Your task to perform on an android device: toggle javascript in the chrome app Image 0: 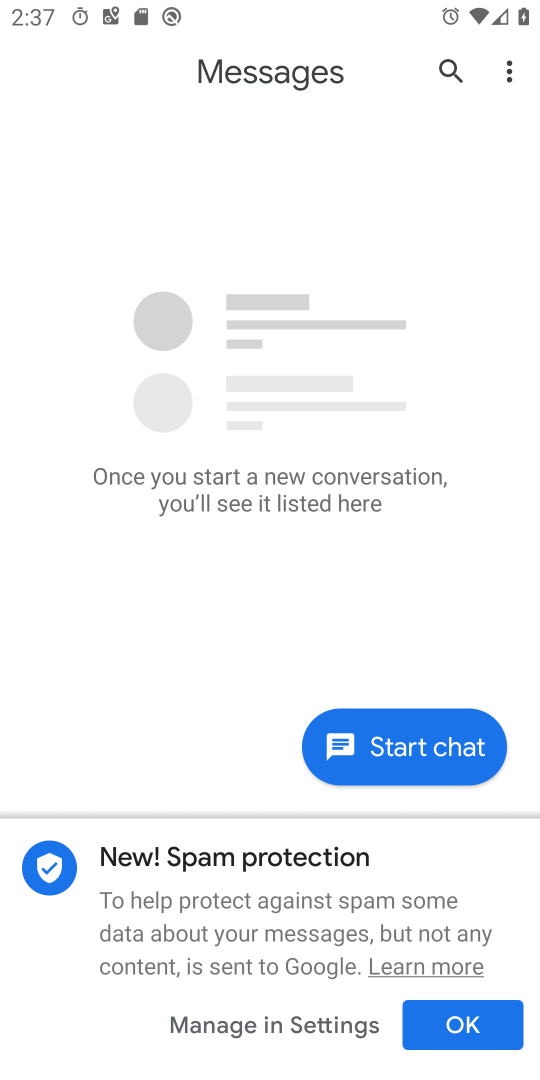
Step 0: press back button
Your task to perform on an android device: toggle javascript in the chrome app Image 1: 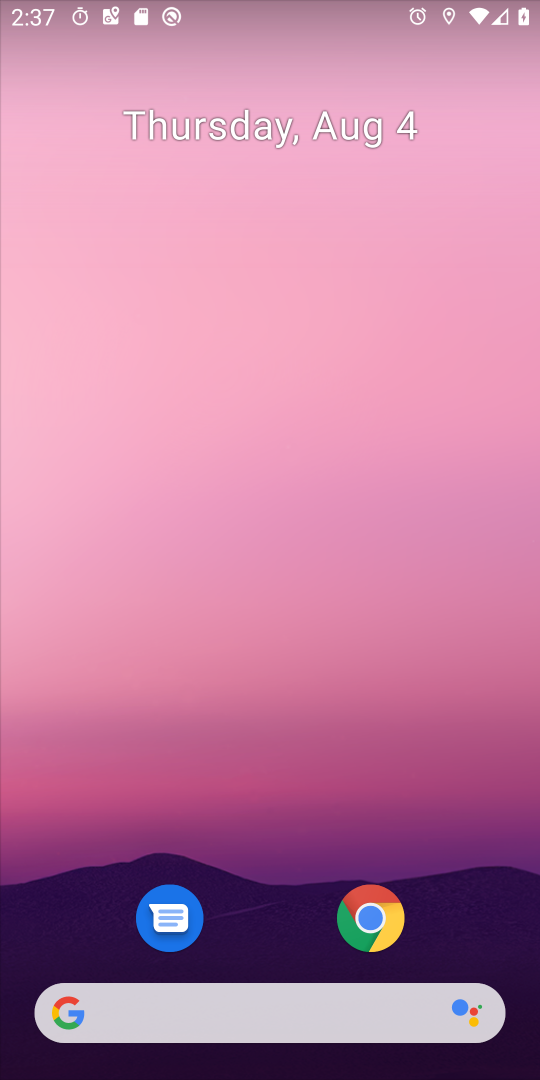
Step 1: click (370, 898)
Your task to perform on an android device: toggle javascript in the chrome app Image 2: 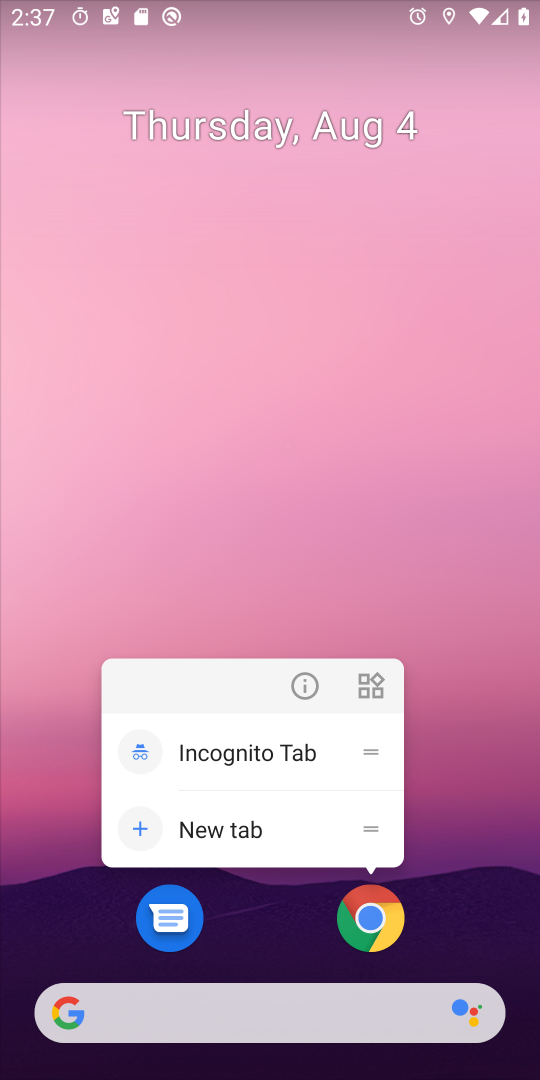
Step 2: click (378, 917)
Your task to perform on an android device: toggle javascript in the chrome app Image 3: 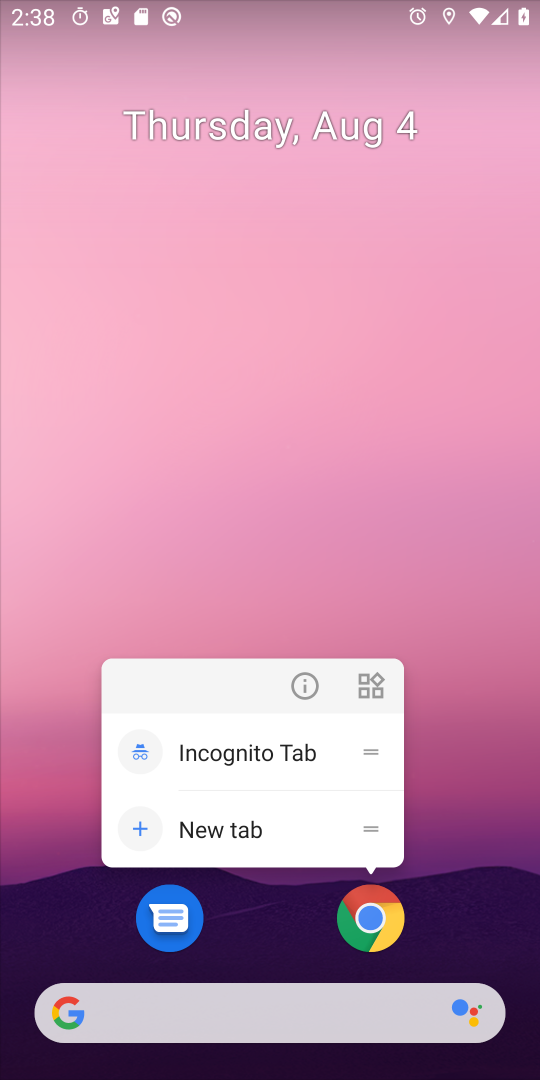
Step 3: click (342, 919)
Your task to perform on an android device: toggle javascript in the chrome app Image 4: 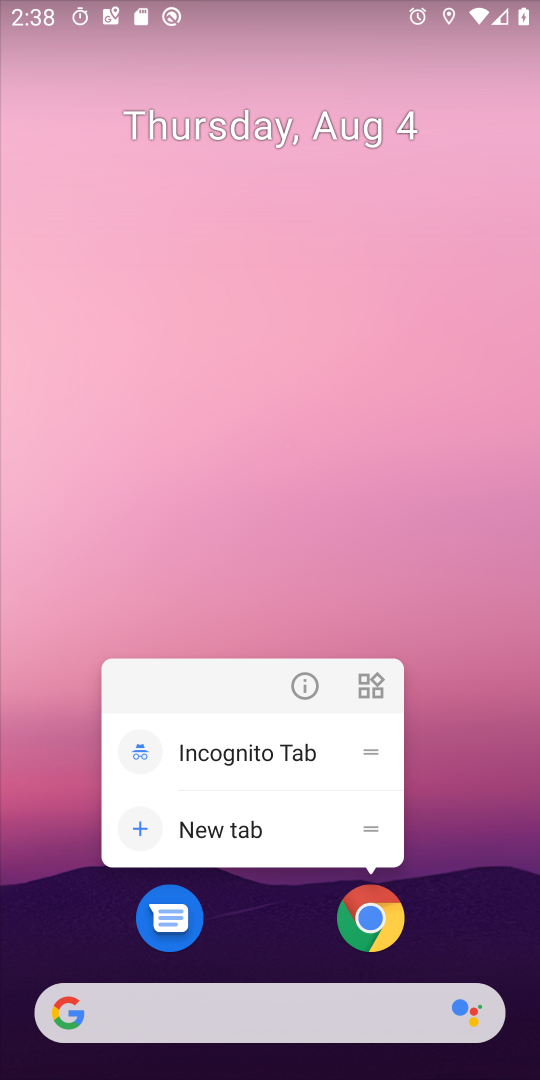
Step 4: click (349, 923)
Your task to perform on an android device: toggle javascript in the chrome app Image 5: 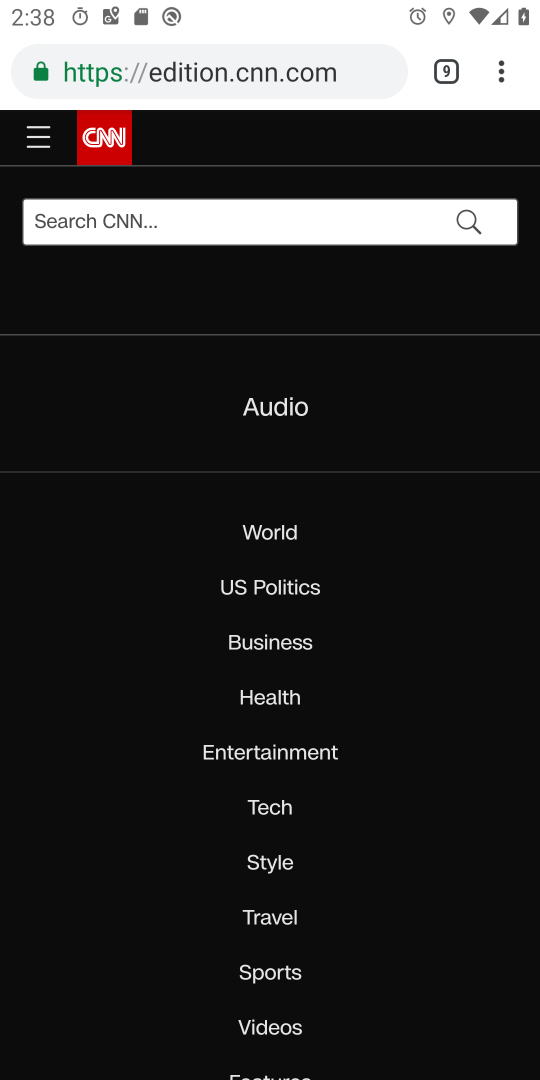
Step 5: drag from (487, 63) to (276, 866)
Your task to perform on an android device: toggle javascript in the chrome app Image 6: 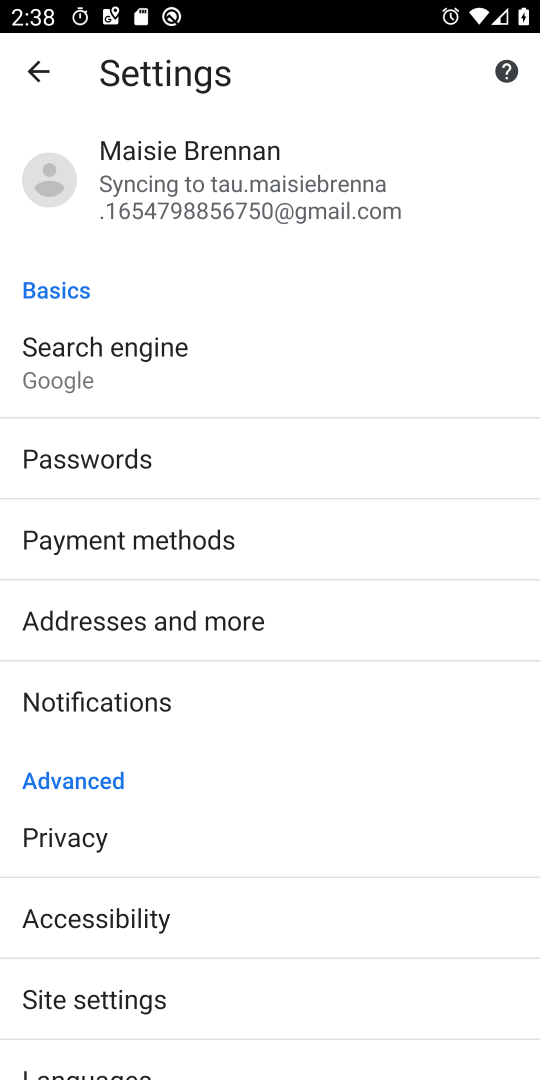
Step 6: drag from (214, 900) to (175, 487)
Your task to perform on an android device: toggle javascript in the chrome app Image 7: 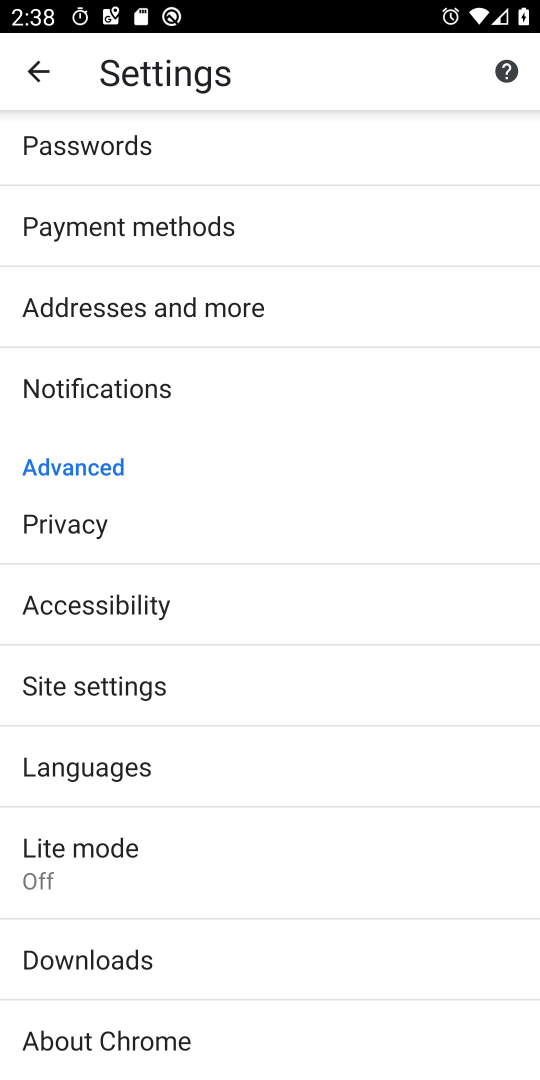
Step 7: click (194, 667)
Your task to perform on an android device: toggle javascript in the chrome app Image 8: 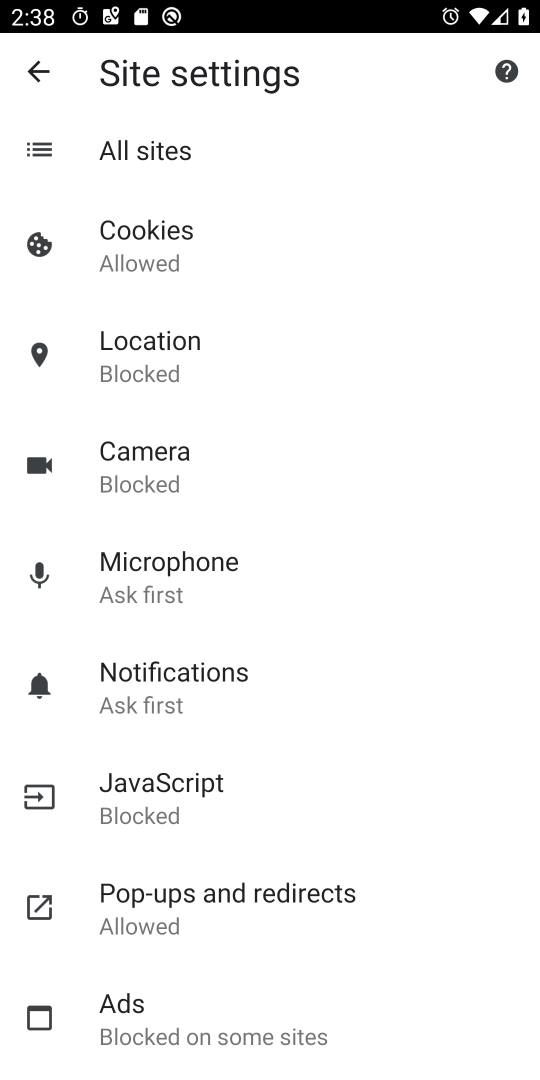
Step 8: click (201, 812)
Your task to perform on an android device: toggle javascript in the chrome app Image 9: 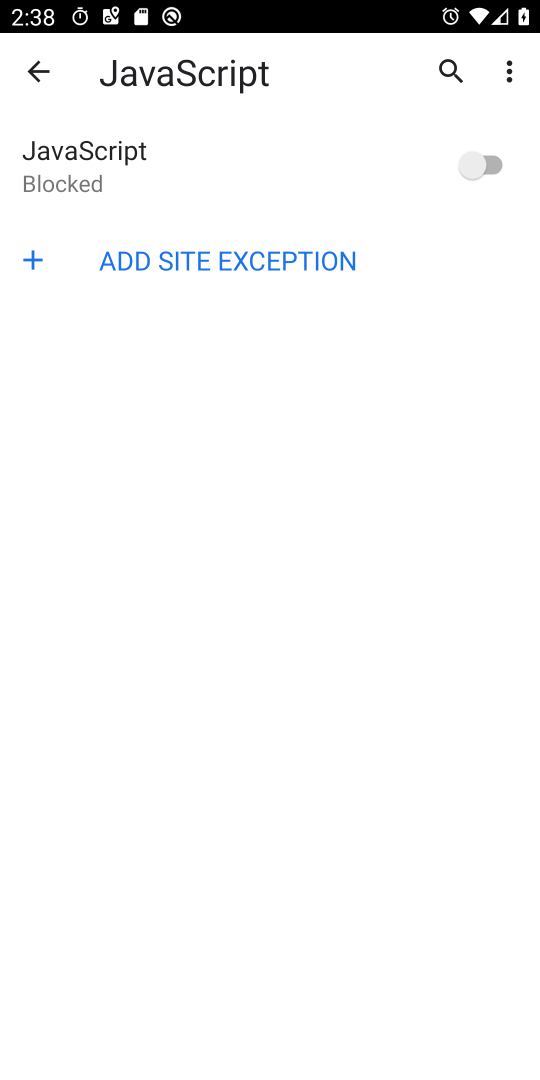
Step 9: click (499, 152)
Your task to perform on an android device: toggle javascript in the chrome app Image 10: 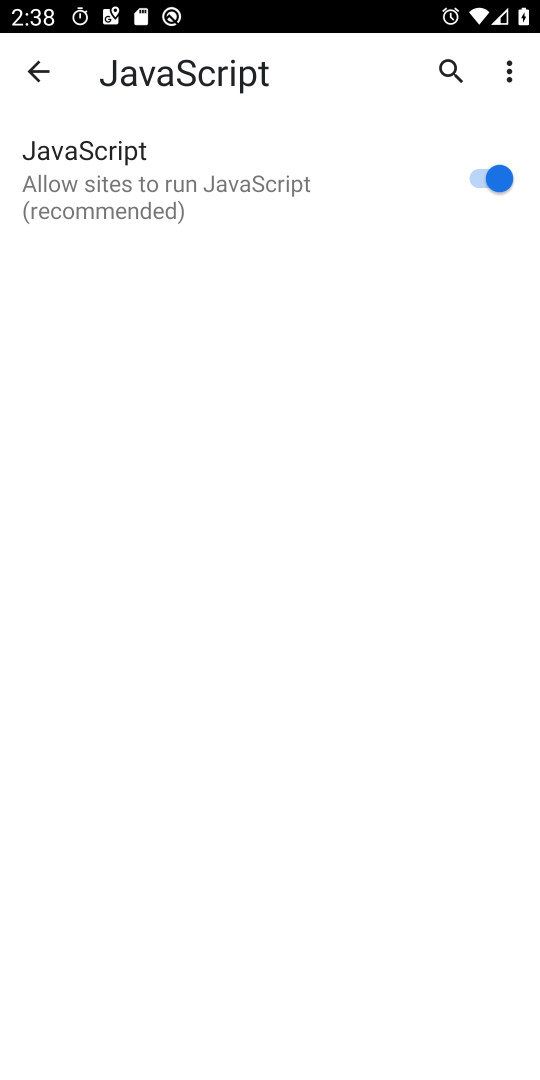
Step 10: task complete